Your task to perform on an android device: turn on airplane mode Image 0: 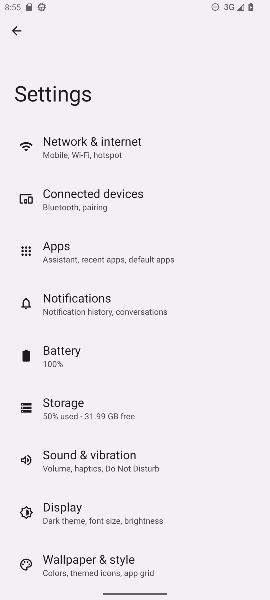
Step 0: press back button
Your task to perform on an android device: turn on airplane mode Image 1: 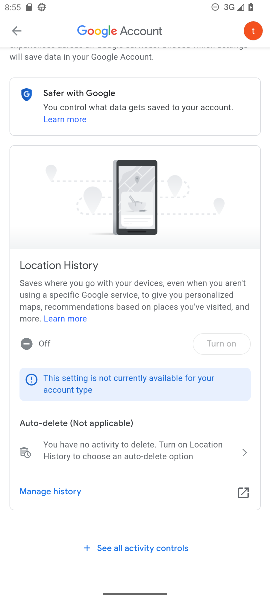
Step 1: press home button
Your task to perform on an android device: turn on airplane mode Image 2: 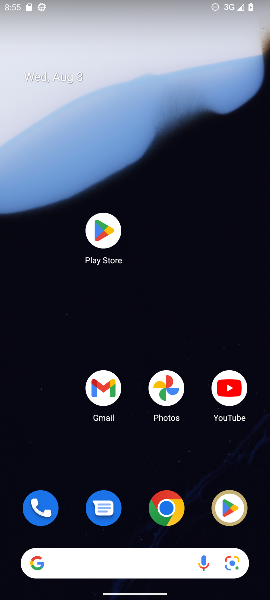
Step 2: drag from (127, 531) to (97, 4)
Your task to perform on an android device: turn on airplane mode Image 3: 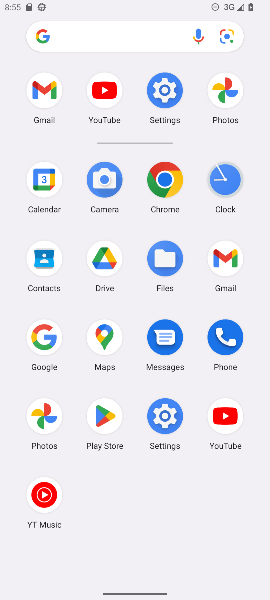
Step 3: click (153, 82)
Your task to perform on an android device: turn on airplane mode Image 4: 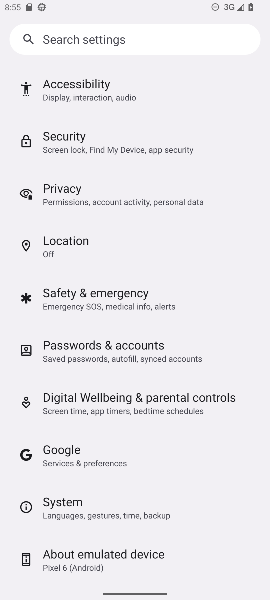
Step 4: drag from (131, 147) to (83, 467)
Your task to perform on an android device: turn on airplane mode Image 5: 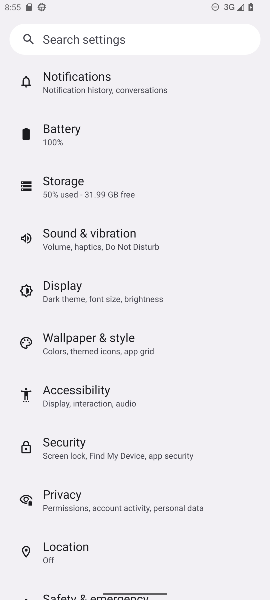
Step 5: click (73, 86)
Your task to perform on an android device: turn on airplane mode Image 6: 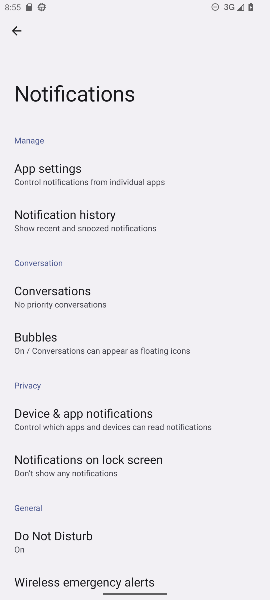
Step 6: click (12, 29)
Your task to perform on an android device: turn on airplane mode Image 7: 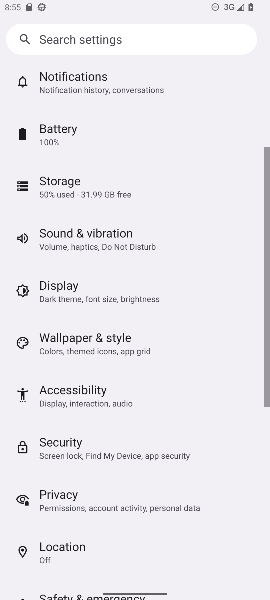
Step 7: drag from (154, 359) to (141, 599)
Your task to perform on an android device: turn on airplane mode Image 8: 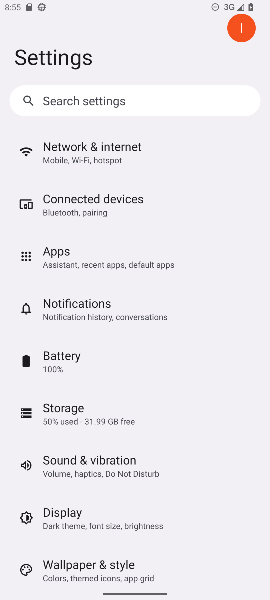
Step 8: click (92, 145)
Your task to perform on an android device: turn on airplane mode Image 9: 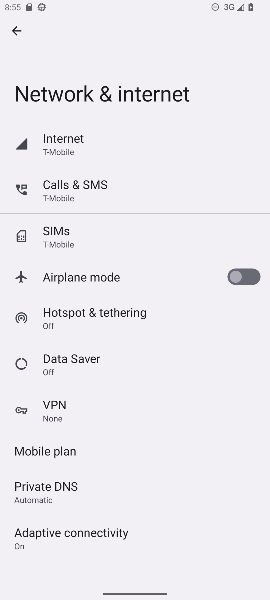
Step 9: task complete